Your task to perform on an android device: search for starred emails in the gmail app Image 0: 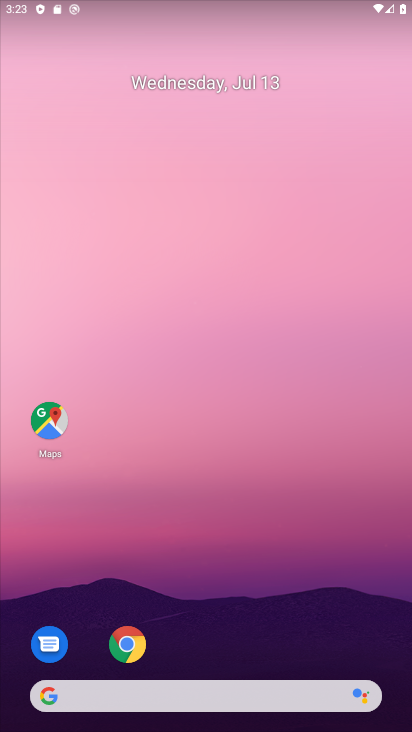
Step 0: drag from (245, 654) to (207, 268)
Your task to perform on an android device: search for starred emails in the gmail app Image 1: 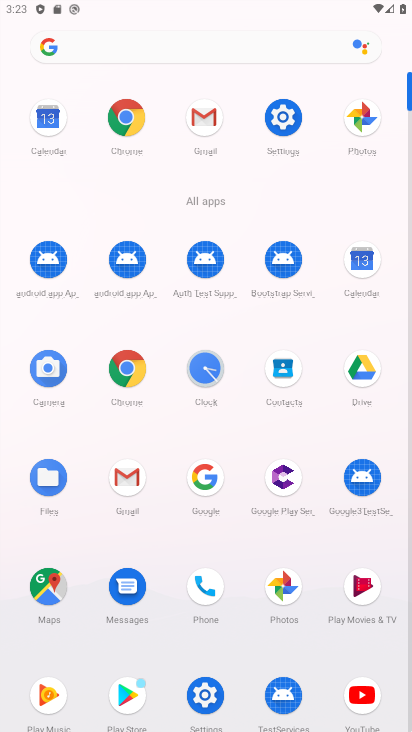
Step 1: click (202, 136)
Your task to perform on an android device: search for starred emails in the gmail app Image 2: 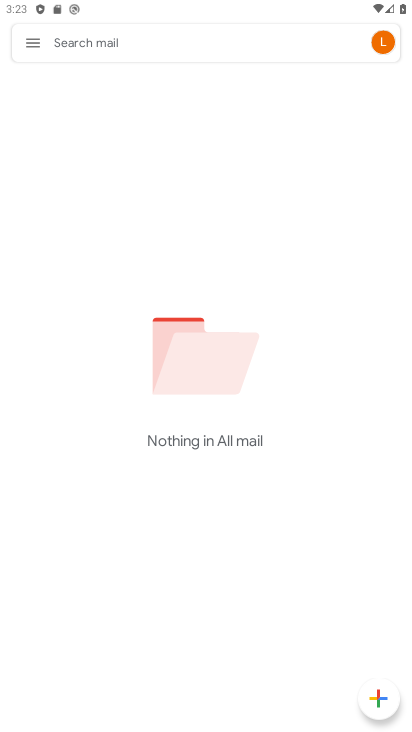
Step 2: click (34, 54)
Your task to perform on an android device: search for starred emails in the gmail app Image 3: 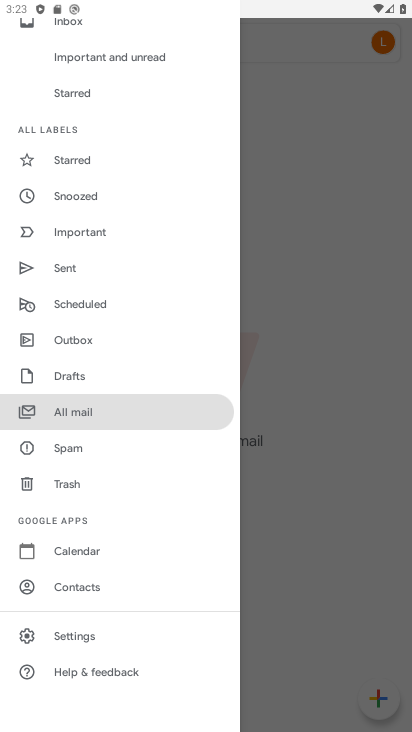
Step 3: click (82, 159)
Your task to perform on an android device: search for starred emails in the gmail app Image 4: 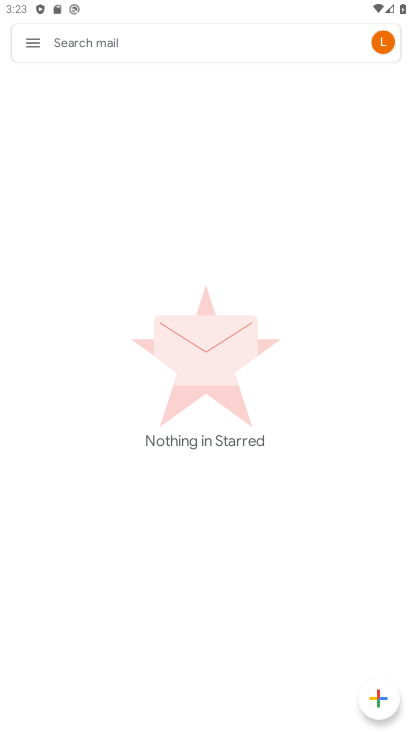
Step 4: task complete